Your task to perform on an android device: turn on sleep mode Image 0: 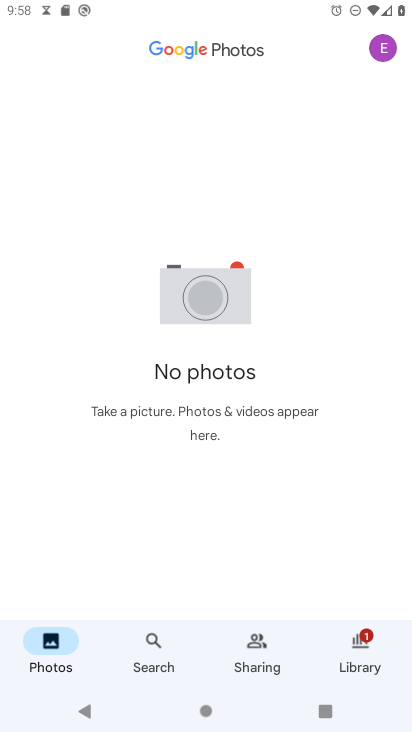
Step 0: press home button
Your task to perform on an android device: turn on sleep mode Image 1: 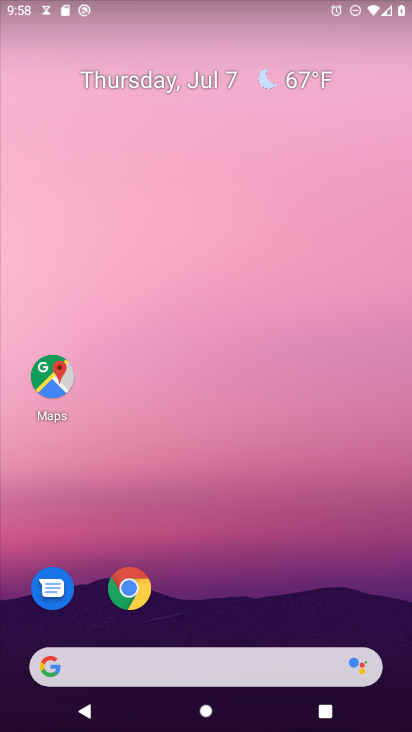
Step 1: drag from (259, 629) to (212, 164)
Your task to perform on an android device: turn on sleep mode Image 2: 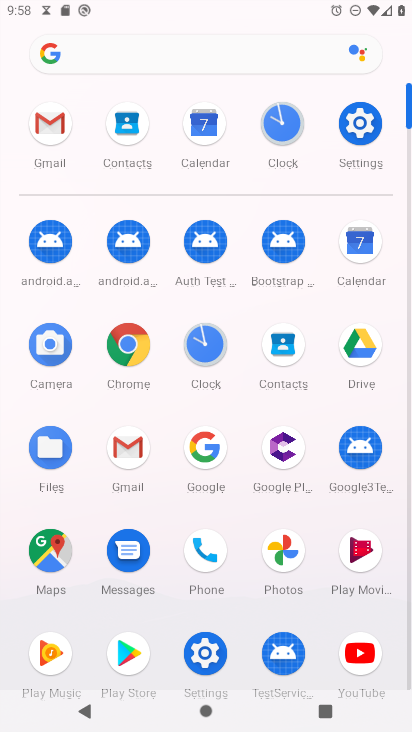
Step 2: click (362, 123)
Your task to perform on an android device: turn on sleep mode Image 3: 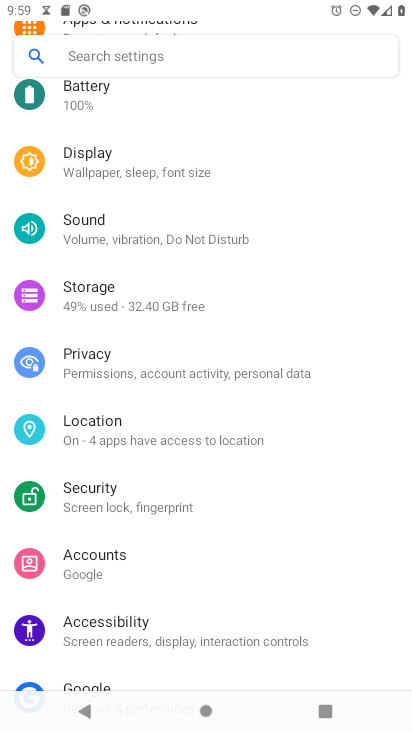
Step 3: drag from (161, 271) to (167, 379)
Your task to perform on an android device: turn on sleep mode Image 4: 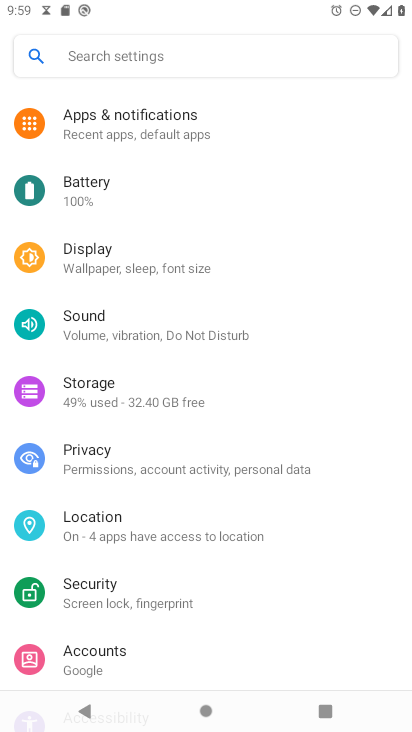
Step 4: drag from (162, 215) to (163, 294)
Your task to perform on an android device: turn on sleep mode Image 5: 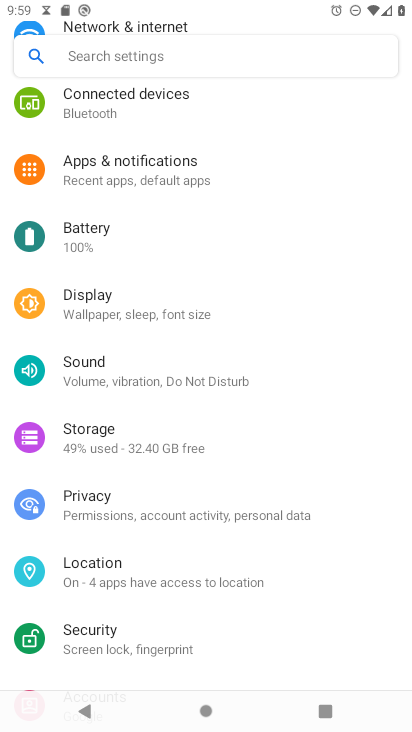
Step 5: drag from (119, 138) to (124, 237)
Your task to perform on an android device: turn on sleep mode Image 6: 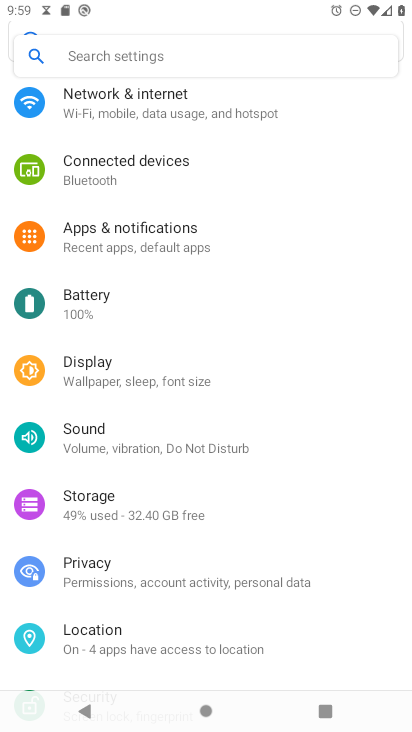
Step 6: drag from (136, 411) to (177, 316)
Your task to perform on an android device: turn on sleep mode Image 7: 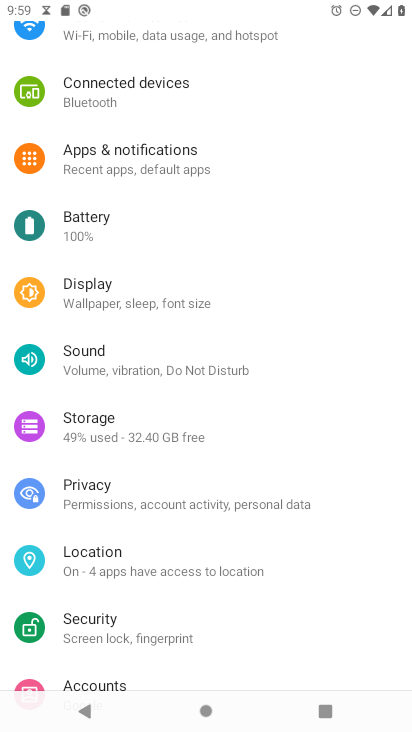
Step 7: click (170, 305)
Your task to perform on an android device: turn on sleep mode Image 8: 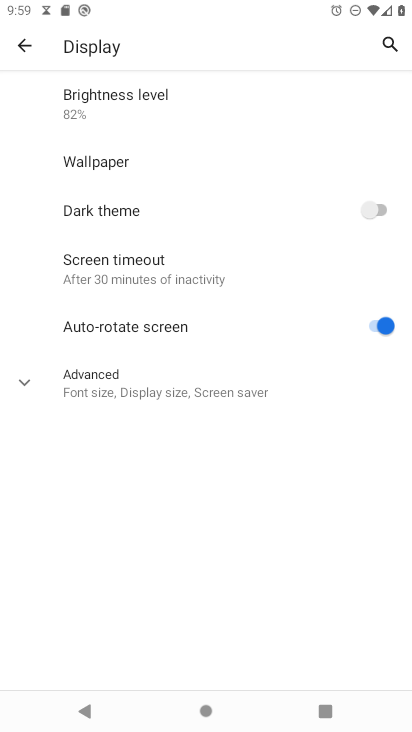
Step 8: drag from (168, 345) to (215, 424)
Your task to perform on an android device: turn on sleep mode Image 9: 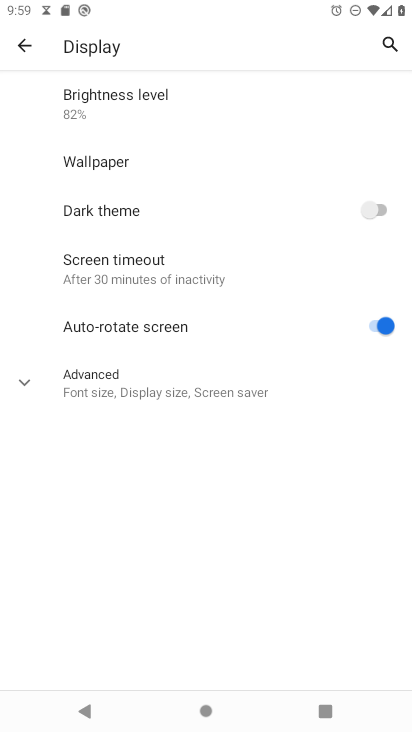
Step 9: click (132, 393)
Your task to perform on an android device: turn on sleep mode Image 10: 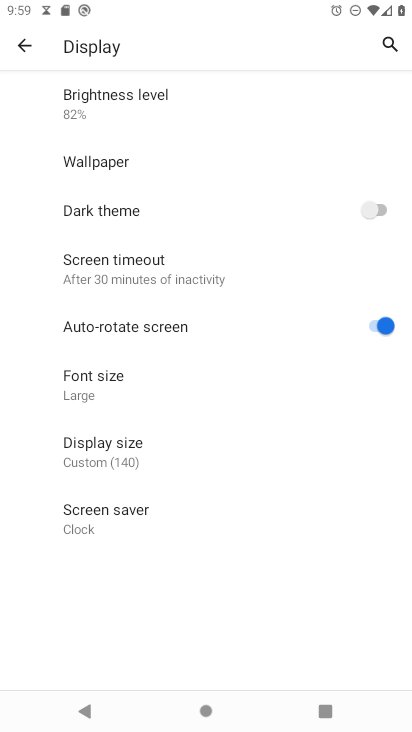
Step 10: task complete